Your task to perform on an android device: empty trash in google photos Image 0: 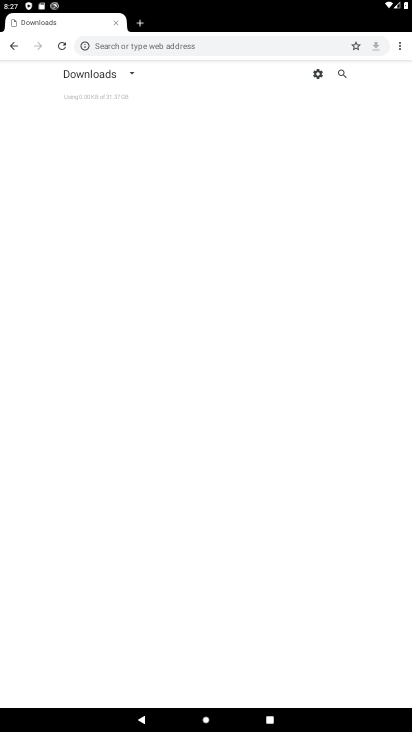
Step 0: press home button
Your task to perform on an android device: empty trash in google photos Image 1: 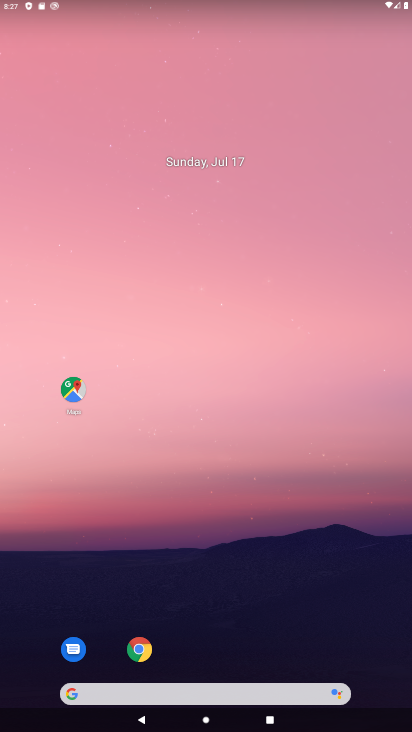
Step 1: drag from (216, 669) to (237, 188)
Your task to perform on an android device: empty trash in google photos Image 2: 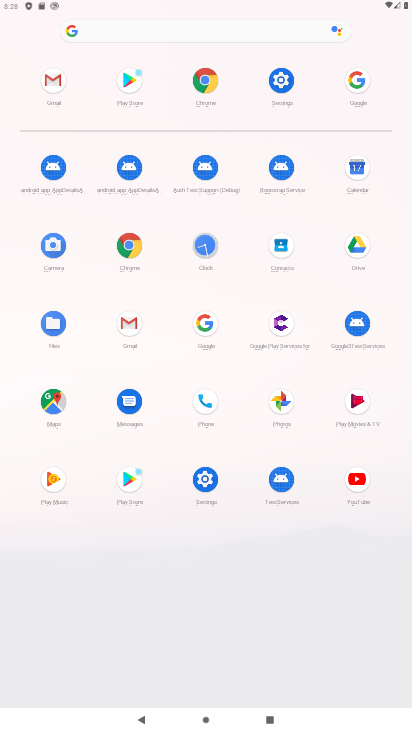
Step 2: click (282, 401)
Your task to perform on an android device: empty trash in google photos Image 3: 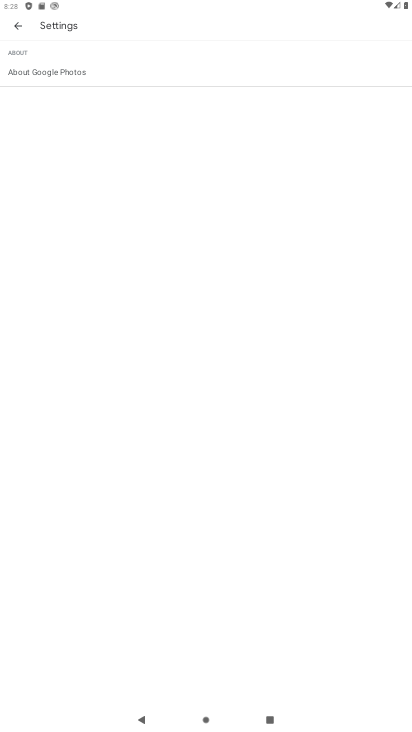
Step 3: press back button
Your task to perform on an android device: empty trash in google photos Image 4: 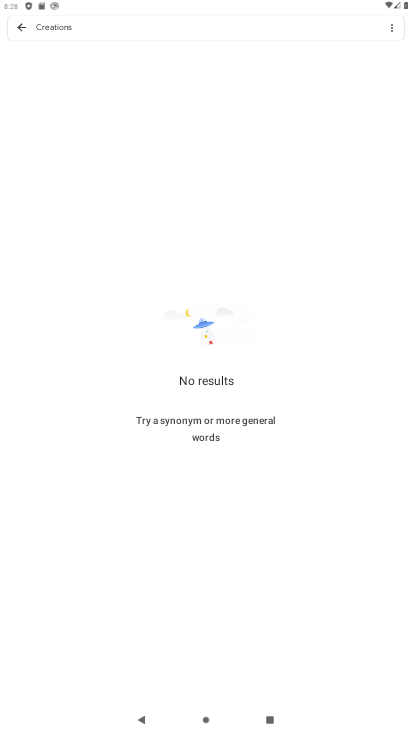
Step 4: press back button
Your task to perform on an android device: empty trash in google photos Image 5: 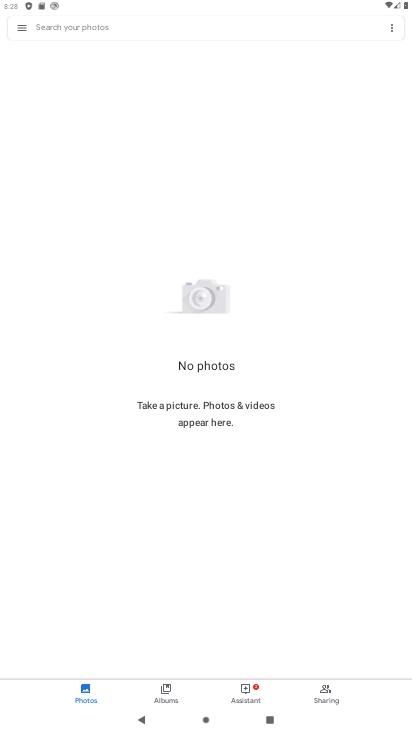
Step 5: click (21, 25)
Your task to perform on an android device: empty trash in google photos Image 6: 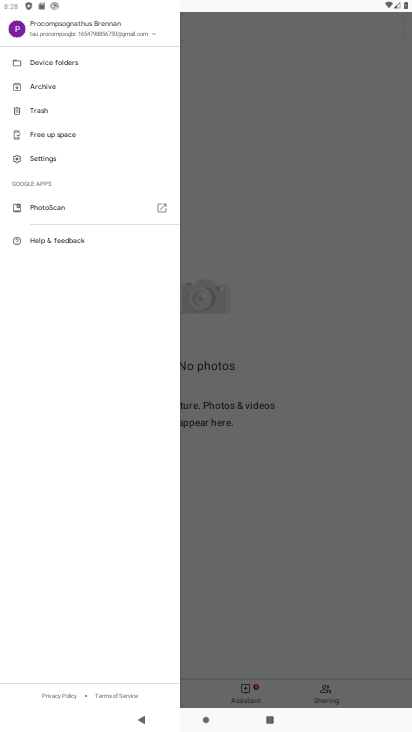
Step 6: click (40, 106)
Your task to perform on an android device: empty trash in google photos Image 7: 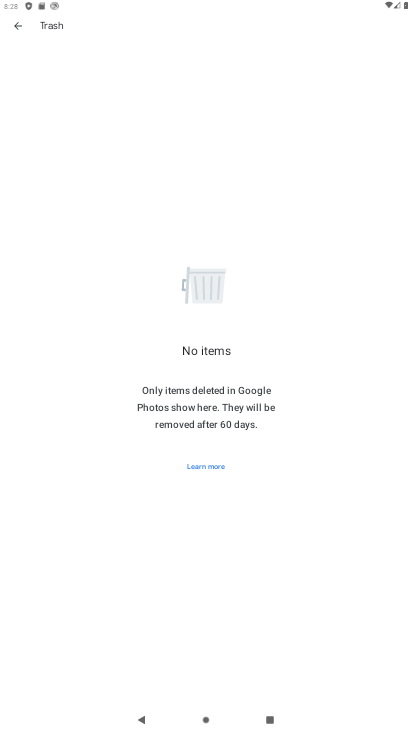
Step 7: task complete